Your task to perform on an android device: Open location settings Image 0: 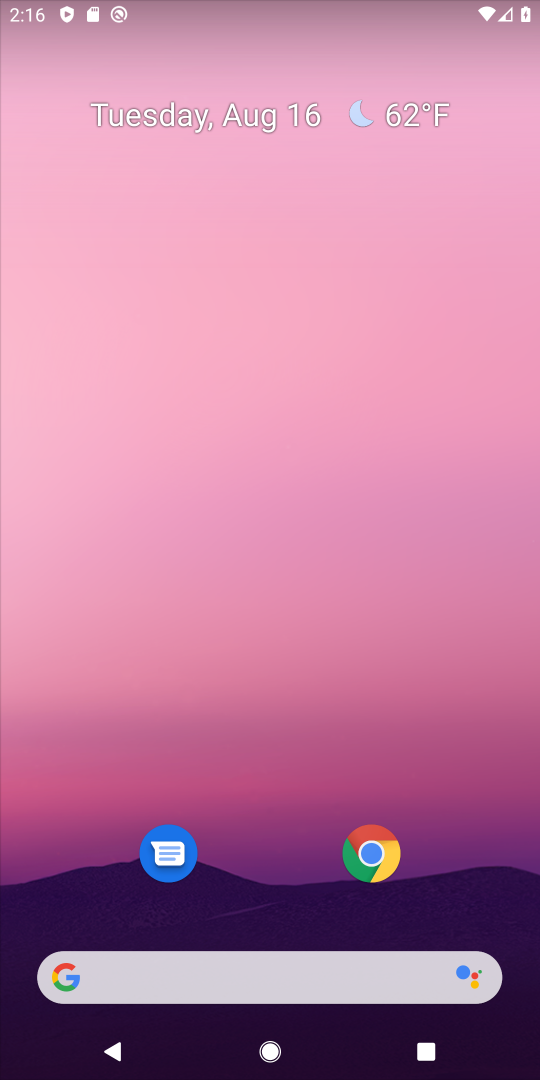
Step 0: drag from (272, 837) to (501, 119)
Your task to perform on an android device: Open location settings Image 1: 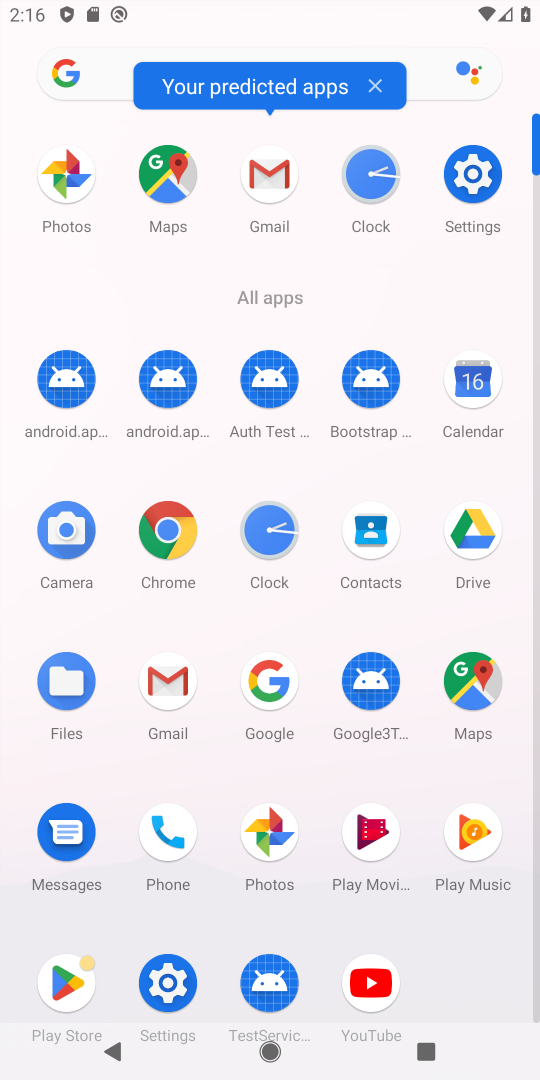
Step 1: click (473, 174)
Your task to perform on an android device: Open location settings Image 2: 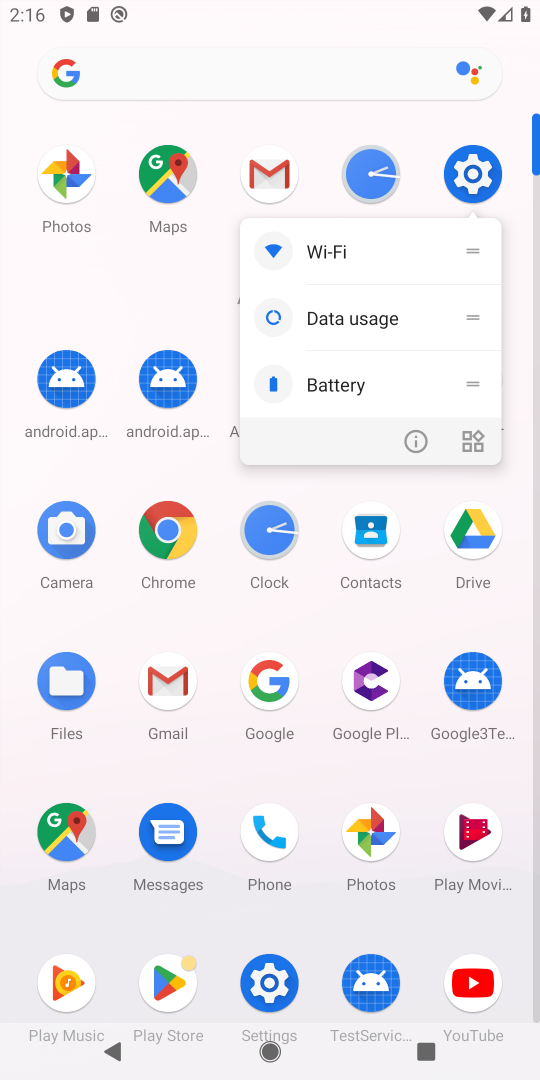
Step 2: task complete